Your task to perform on an android device: turn vacation reply on in the gmail app Image 0: 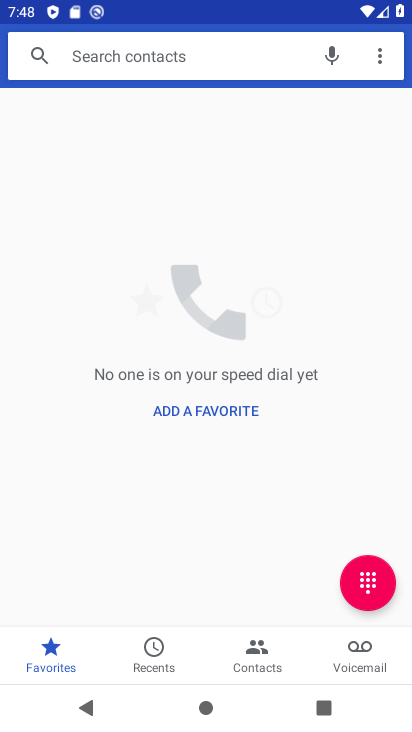
Step 0: press home button
Your task to perform on an android device: turn vacation reply on in the gmail app Image 1: 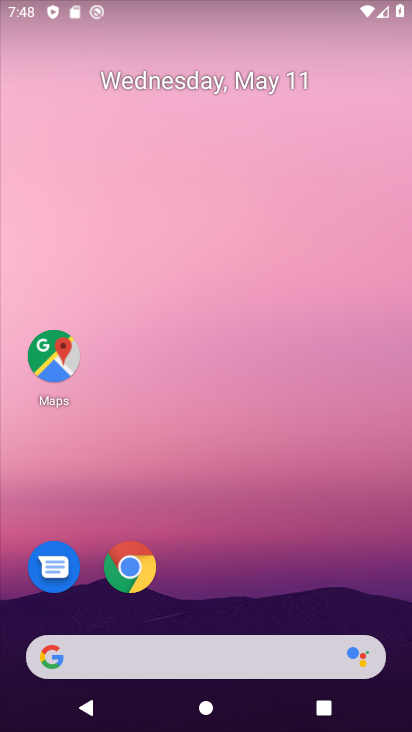
Step 1: drag from (160, 444) to (212, 57)
Your task to perform on an android device: turn vacation reply on in the gmail app Image 2: 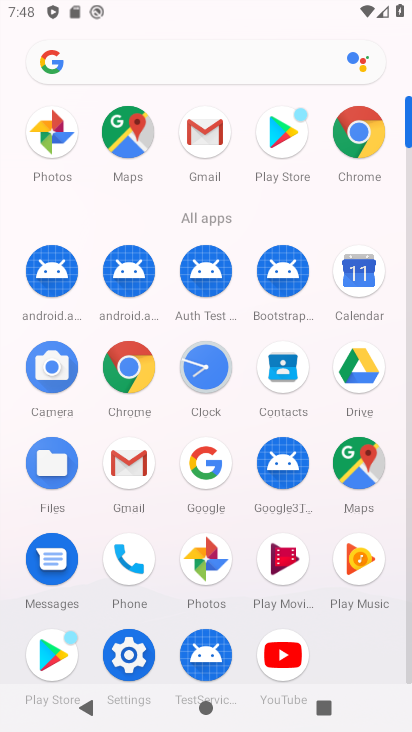
Step 2: click (140, 469)
Your task to perform on an android device: turn vacation reply on in the gmail app Image 3: 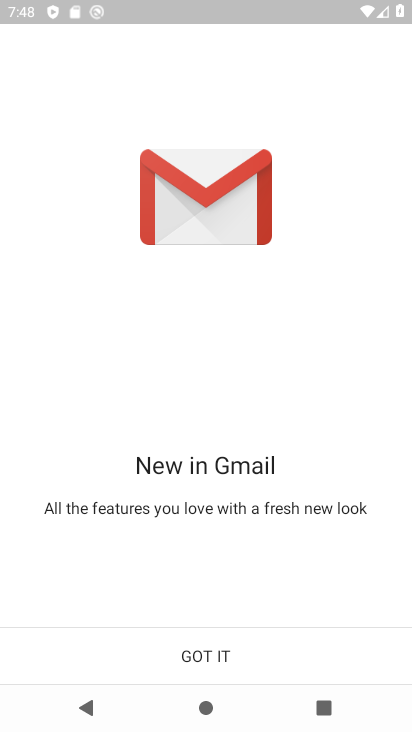
Step 3: click (199, 641)
Your task to perform on an android device: turn vacation reply on in the gmail app Image 4: 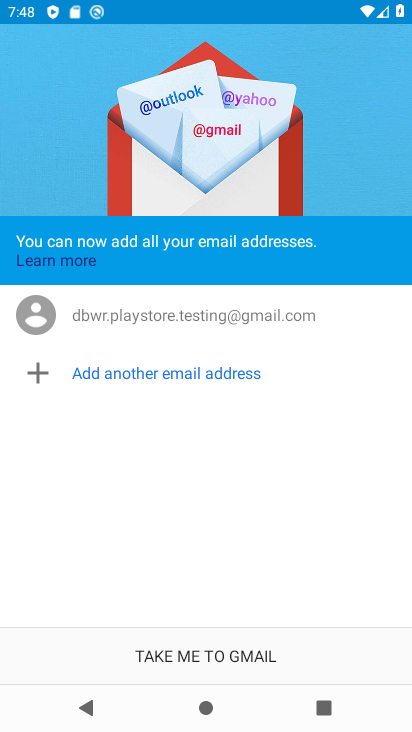
Step 4: click (202, 661)
Your task to perform on an android device: turn vacation reply on in the gmail app Image 5: 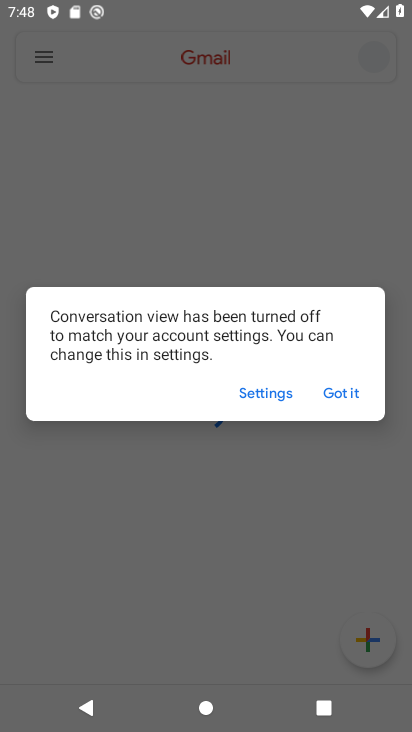
Step 5: click (326, 394)
Your task to perform on an android device: turn vacation reply on in the gmail app Image 6: 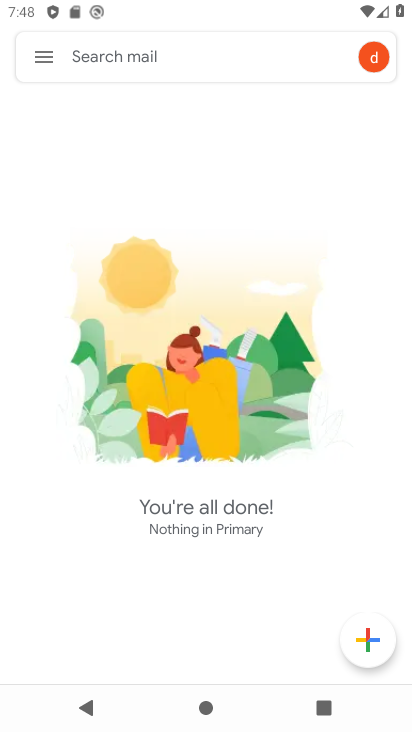
Step 6: click (53, 65)
Your task to perform on an android device: turn vacation reply on in the gmail app Image 7: 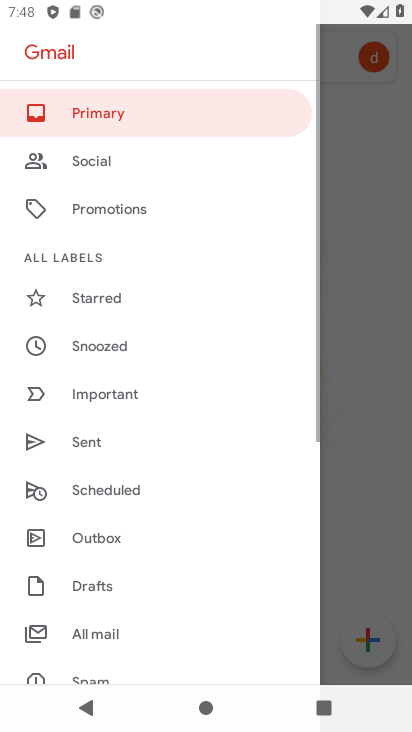
Step 7: drag from (105, 643) to (156, 275)
Your task to perform on an android device: turn vacation reply on in the gmail app Image 8: 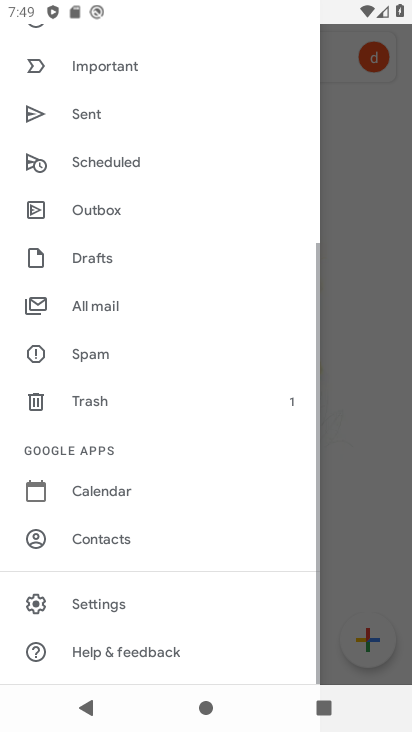
Step 8: click (102, 611)
Your task to perform on an android device: turn vacation reply on in the gmail app Image 9: 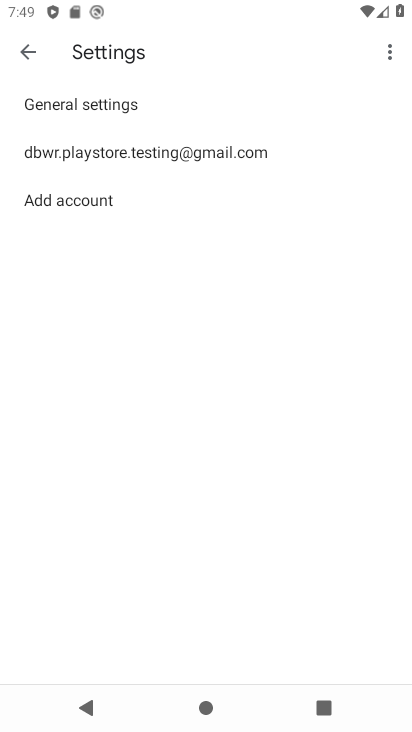
Step 9: click (114, 155)
Your task to perform on an android device: turn vacation reply on in the gmail app Image 10: 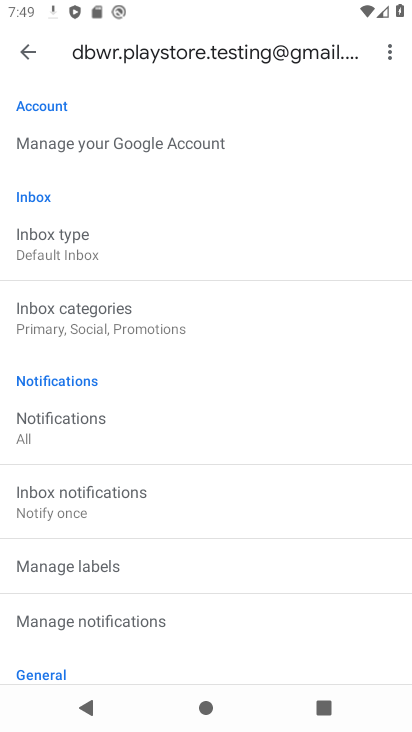
Step 10: drag from (93, 579) to (129, 251)
Your task to perform on an android device: turn vacation reply on in the gmail app Image 11: 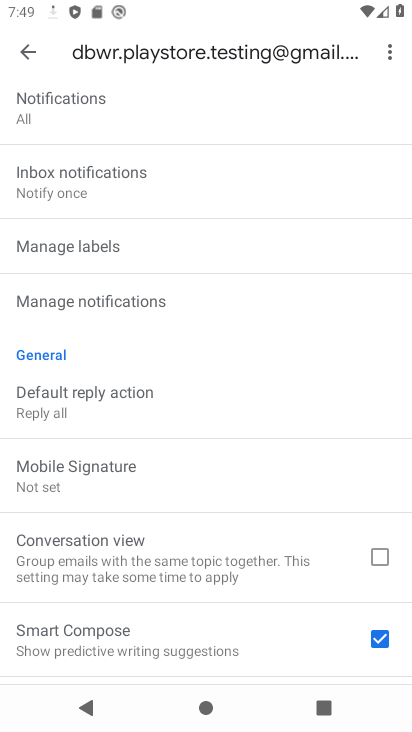
Step 11: drag from (88, 520) to (118, 326)
Your task to perform on an android device: turn vacation reply on in the gmail app Image 12: 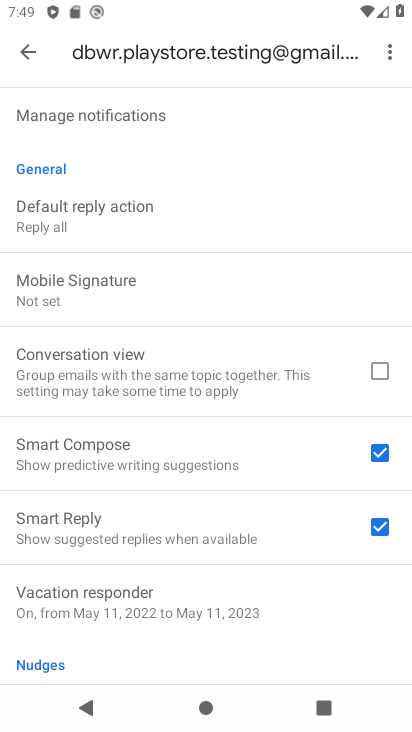
Step 12: click (98, 597)
Your task to perform on an android device: turn vacation reply on in the gmail app Image 13: 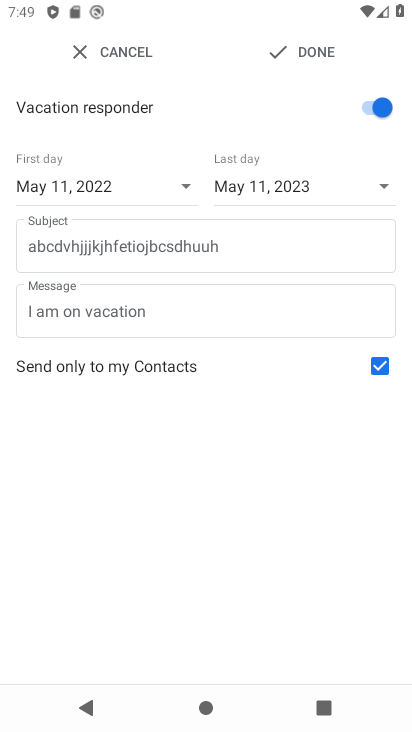
Step 13: task complete